Your task to perform on an android device: Go to Amazon Image 0: 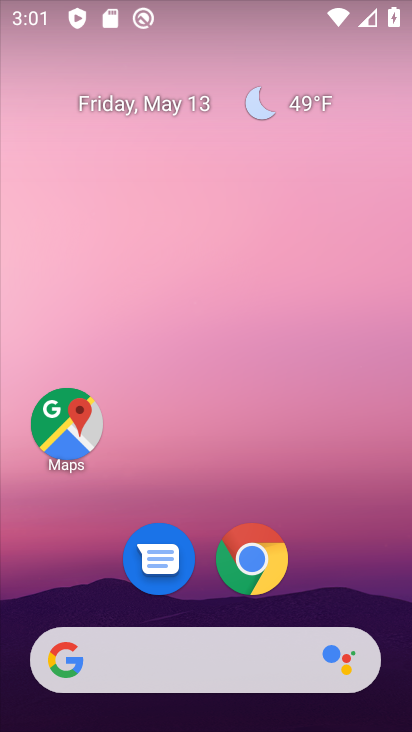
Step 0: click (247, 554)
Your task to perform on an android device: Go to Amazon Image 1: 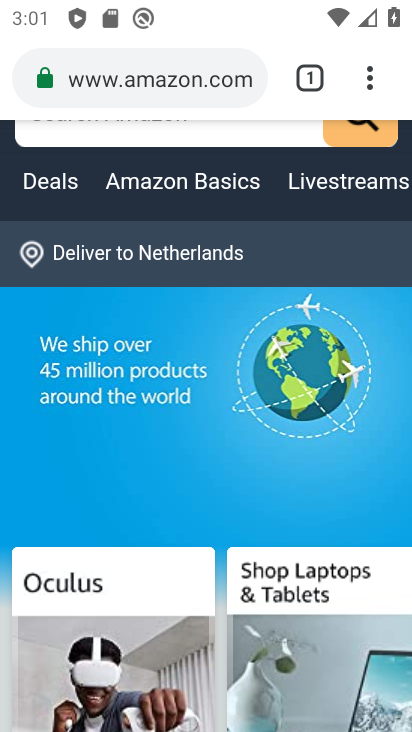
Step 1: task complete